Your task to perform on an android device: Open Youtube and go to "Your channel" Image 0: 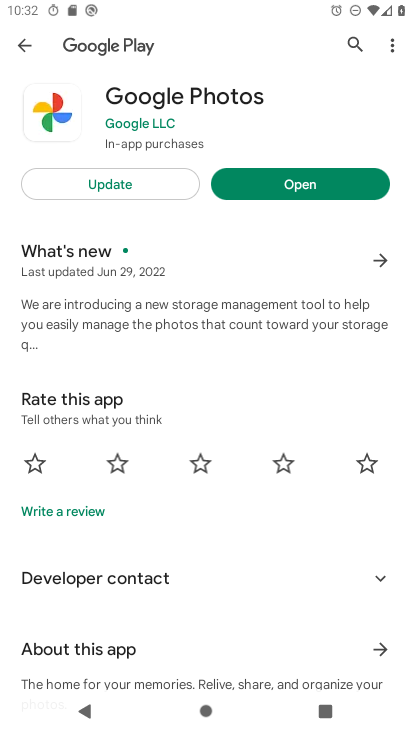
Step 0: press back button
Your task to perform on an android device: Open Youtube and go to "Your channel" Image 1: 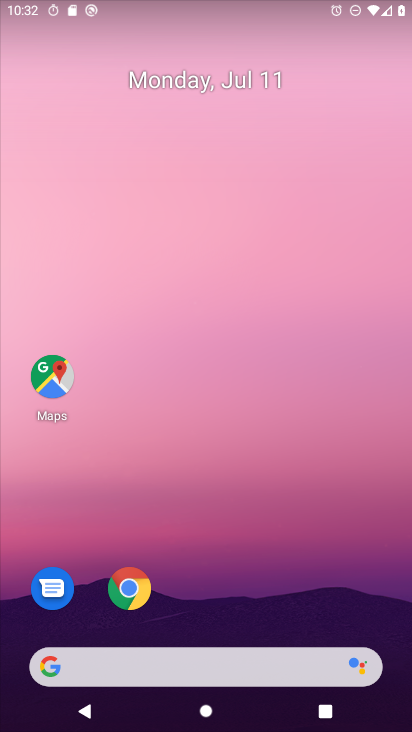
Step 1: drag from (203, 606) to (286, 36)
Your task to perform on an android device: Open Youtube and go to "Your channel" Image 2: 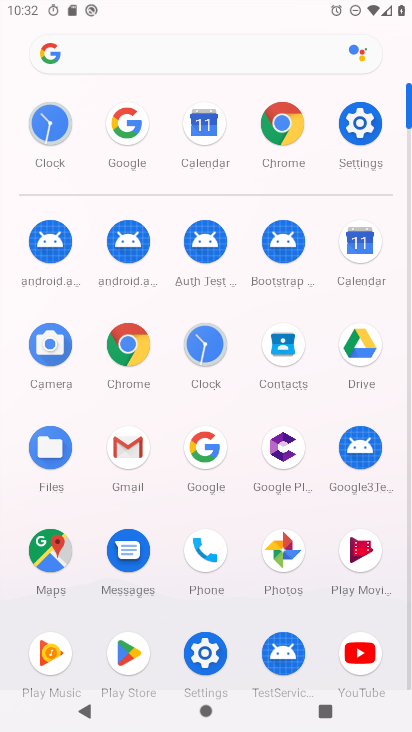
Step 2: click (343, 663)
Your task to perform on an android device: Open Youtube and go to "Your channel" Image 3: 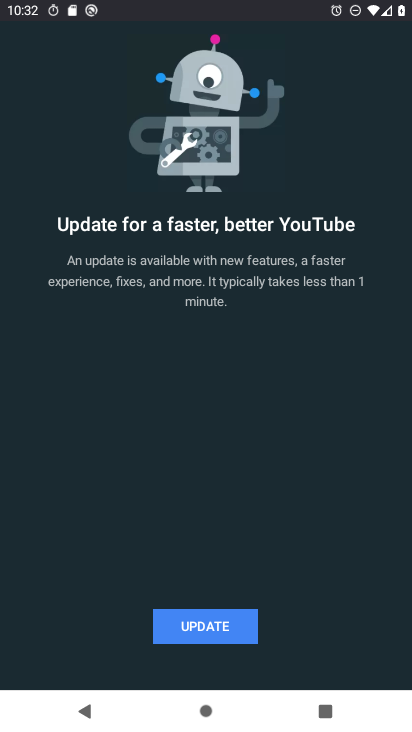
Step 3: click (160, 648)
Your task to perform on an android device: Open Youtube and go to "Your channel" Image 4: 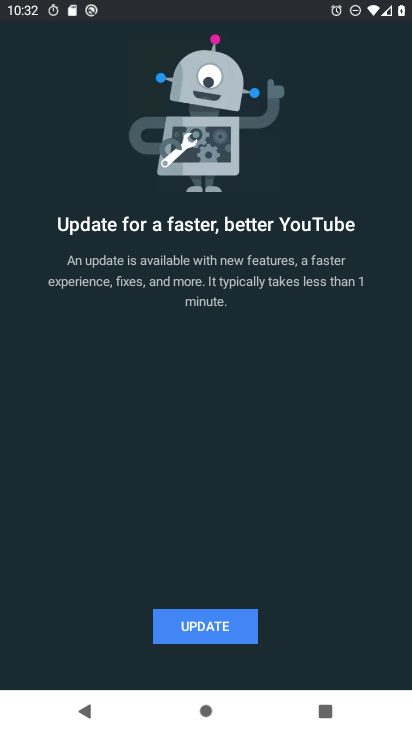
Step 4: click (222, 624)
Your task to perform on an android device: Open Youtube and go to "Your channel" Image 5: 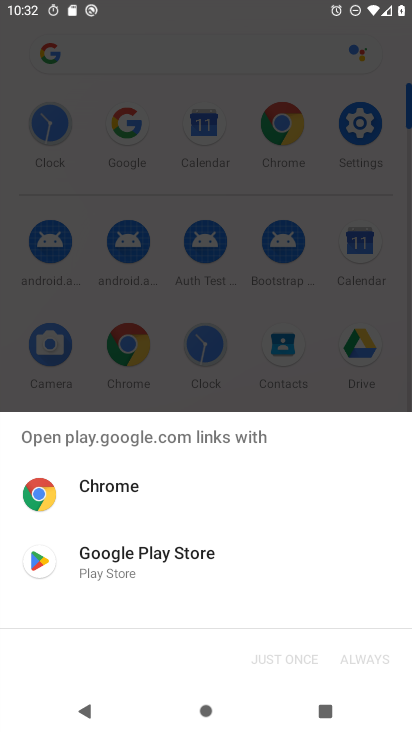
Step 5: click (94, 559)
Your task to perform on an android device: Open Youtube and go to "Your channel" Image 6: 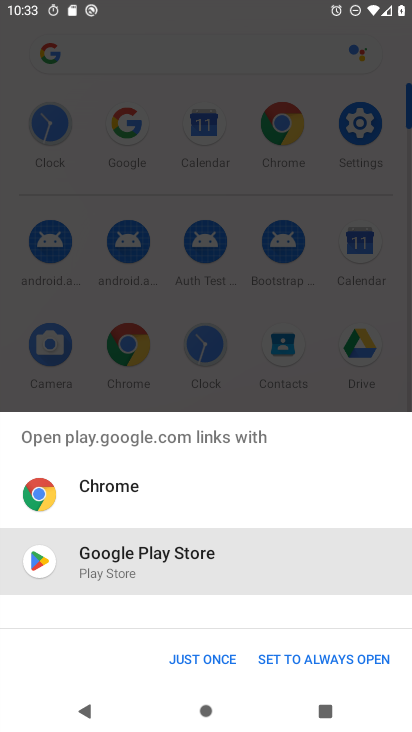
Step 6: click (192, 660)
Your task to perform on an android device: Open Youtube and go to "Your channel" Image 7: 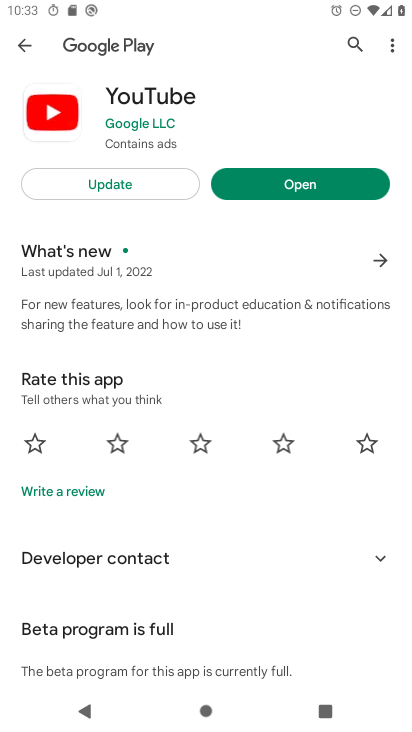
Step 7: click (85, 174)
Your task to perform on an android device: Open Youtube and go to "Your channel" Image 8: 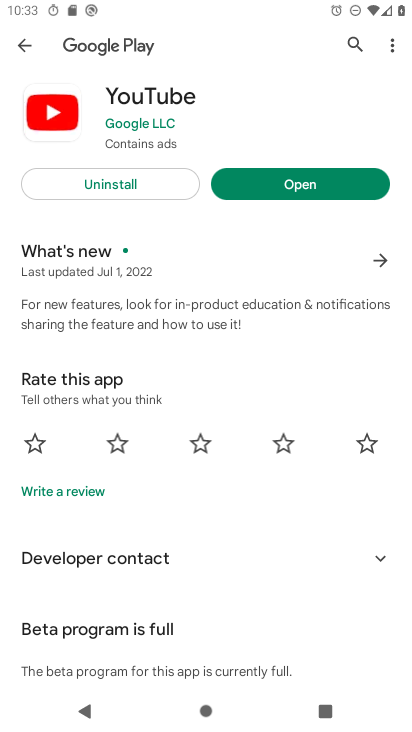
Step 8: click (318, 185)
Your task to perform on an android device: Open Youtube and go to "Your channel" Image 9: 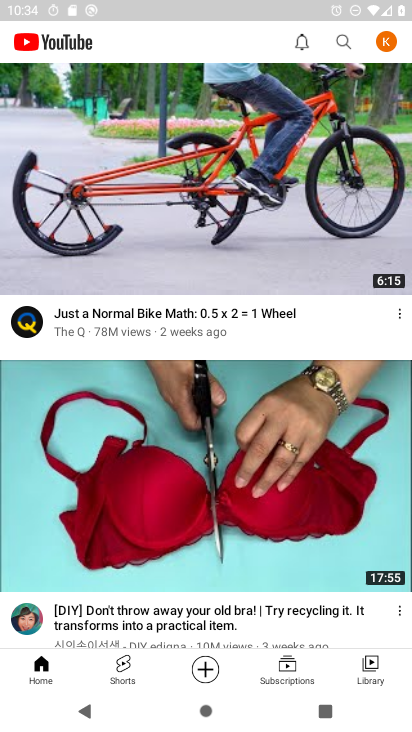
Step 9: click (386, 38)
Your task to perform on an android device: Open Youtube and go to "Your channel" Image 10: 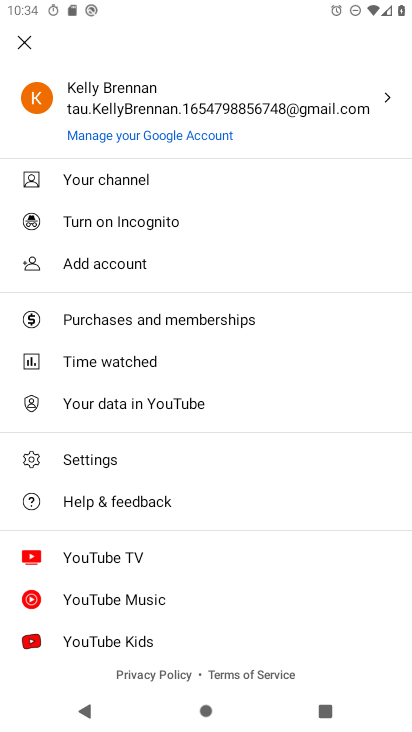
Step 10: click (135, 175)
Your task to perform on an android device: Open Youtube and go to "Your channel" Image 11: 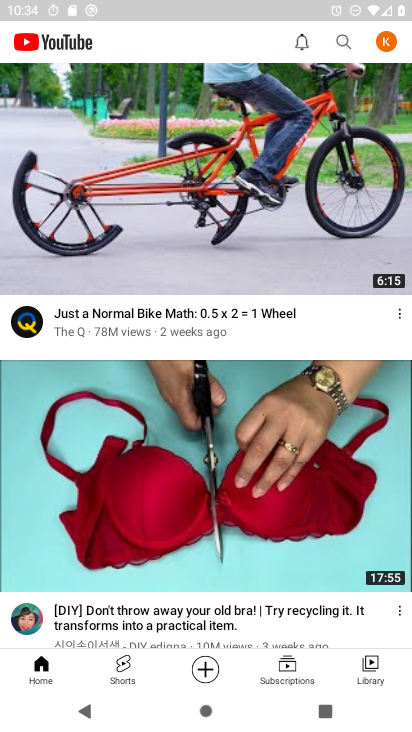
Step 11: task complete